Your task to perform on an android device: Open CNN.com Image 0: 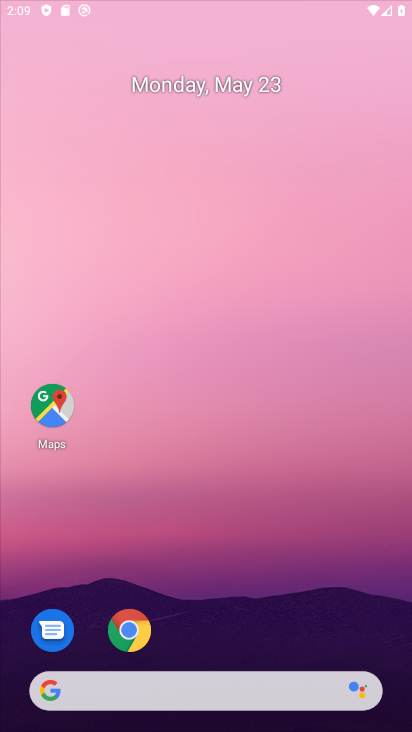
Step 0: click (191, 64)
Your task to perform on an android device: Open CNN.com Image 1: 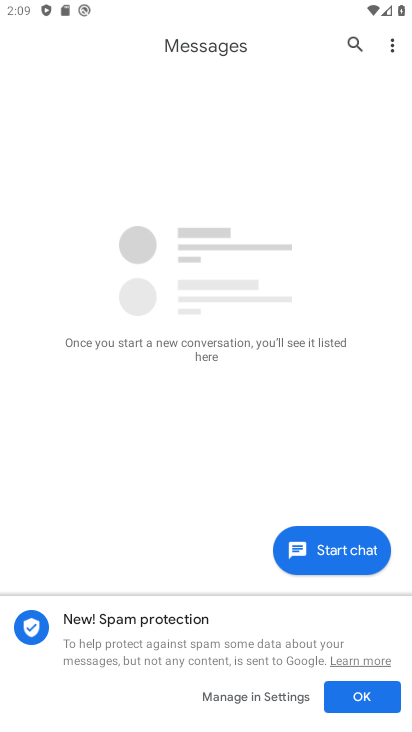
Step 1: press home button
Your task to perform on an android device: Open CNN.com Image 2: 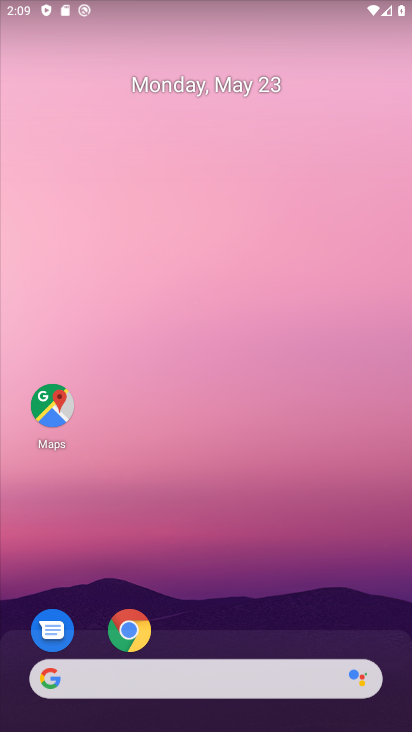
Step 2: click (245, 688)
Your task to perform on an android device: Open CNN.com Image 3: 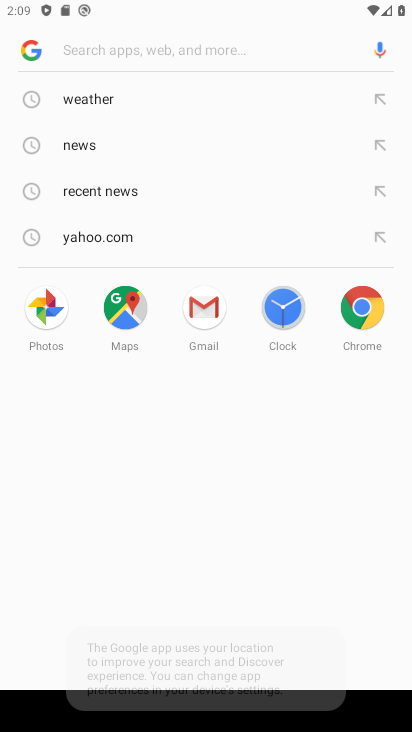
Step 3: type "CNN.com"
Your task to perform on an android device: Open CNN.com Image 4: 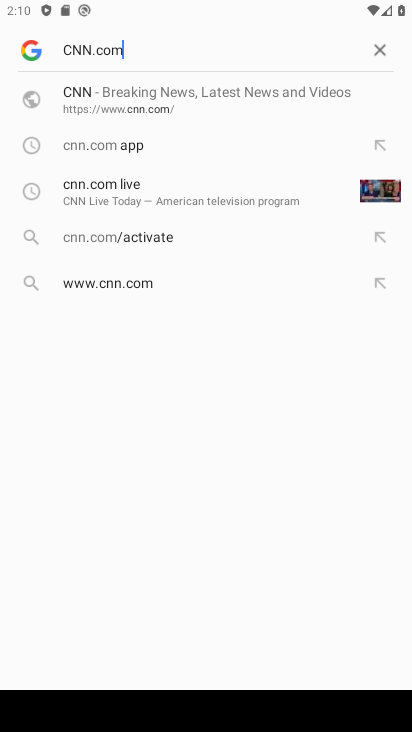
Step 4: click (124, 101)
Your task to perform on an android device: Open CNN.com Image 5: 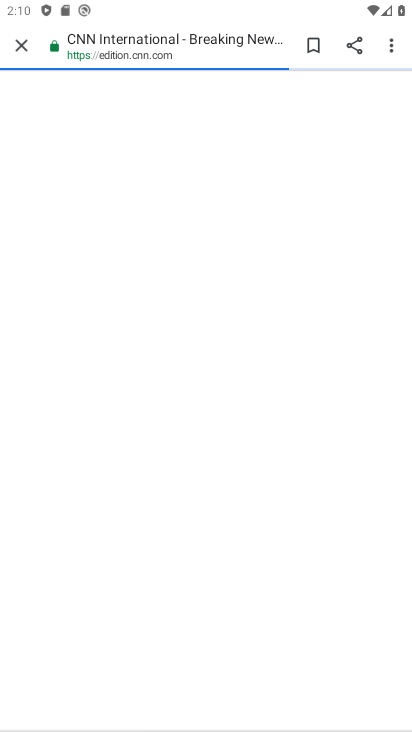
Step 5: task complete